Your task to perform on an android device: clear all cookies in the chrome app Image 0: 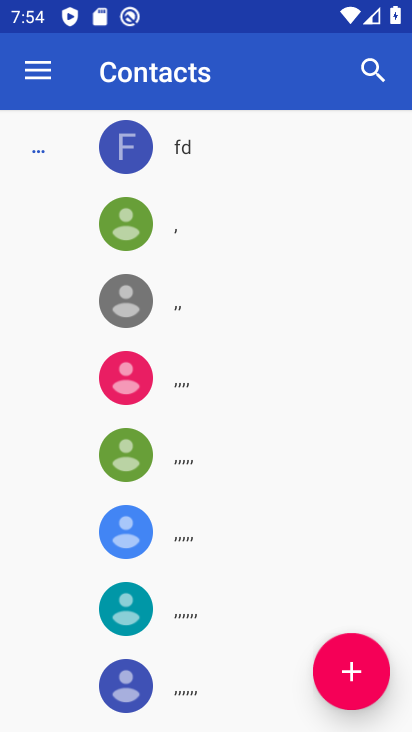
Step 0: press home button
Your task to perform on an android device: clear all cookies in the chrome app Image 1: 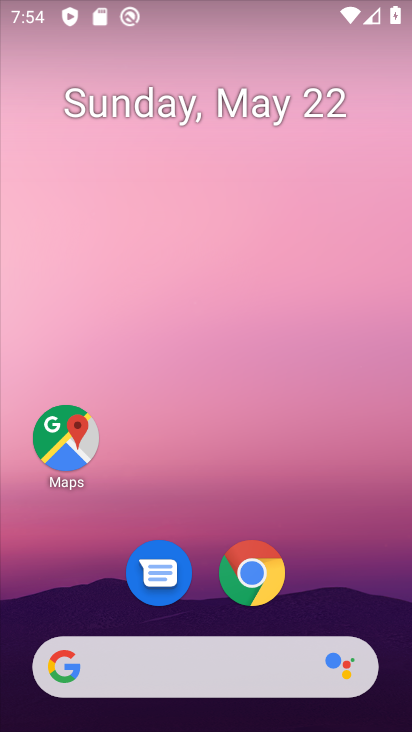
Step 1: click (232, 570)
Your task to perform on an android device: clear all cookies in the chrome app Image 2: 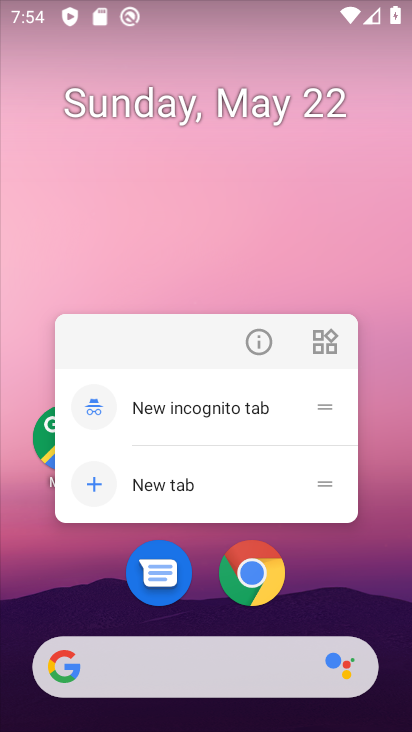
Step 2: click (236, 566)
Your task to perform on an android device: clear all cookies in the chrome app Image 3: 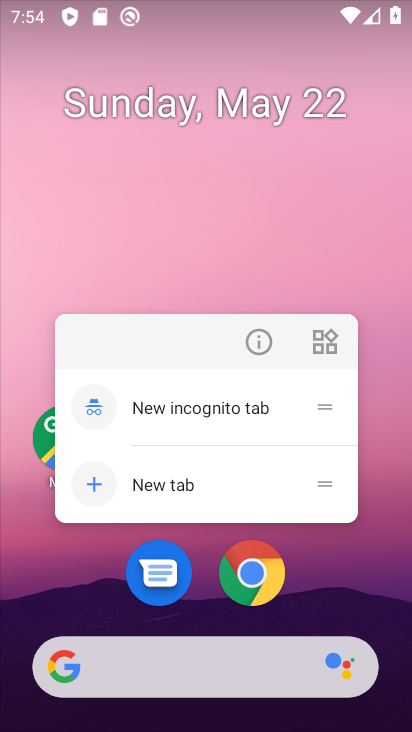
Step 3: click (237, 580)
Your task to perform on an android device: clear all cookies in the chrome app Image 4: 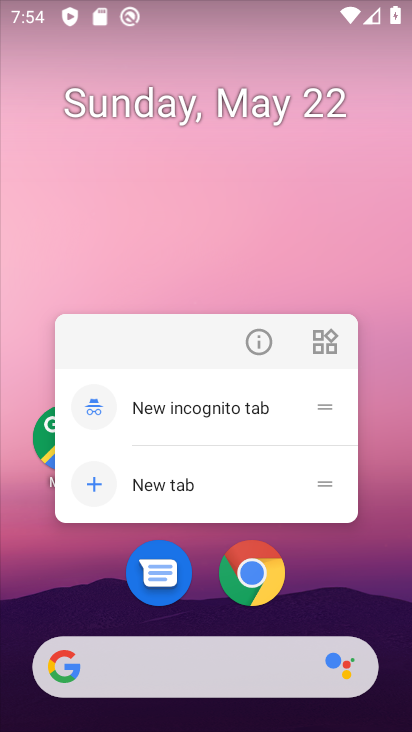
Step 4: drag from (378, 582) to (368, 186)
Your task to perform on an android device: clear all cookies in the chrome app Image 5: 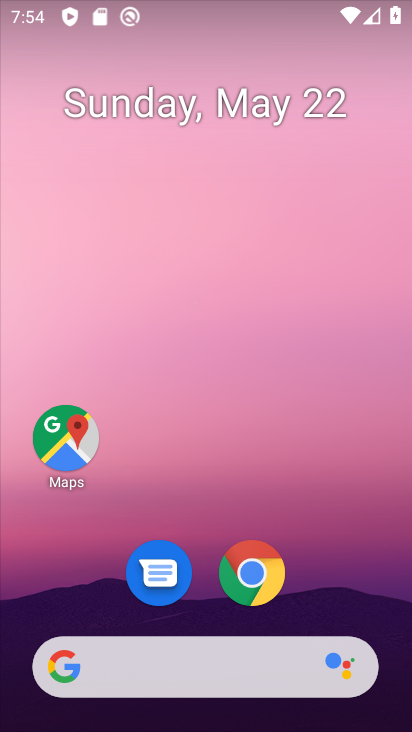
Step 5: drag from (362, 594) to (343, 231)
Your task to perform on an android device: clear all cookies in the chrome app Image 6: 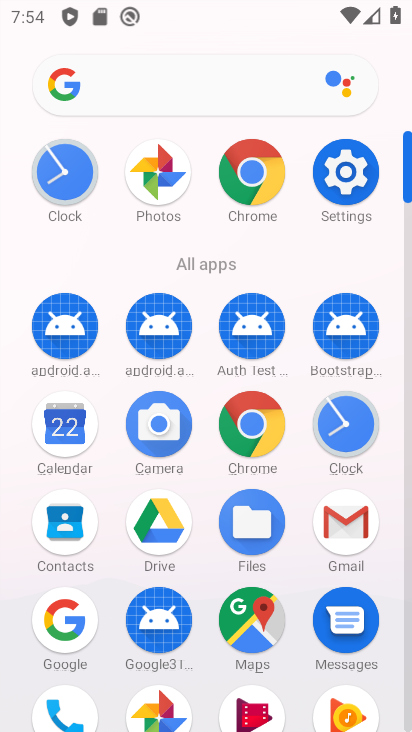
Step 6: click (238, 424)
Your task to perform on an android device: clear all cookies in the chrome app Image 7: 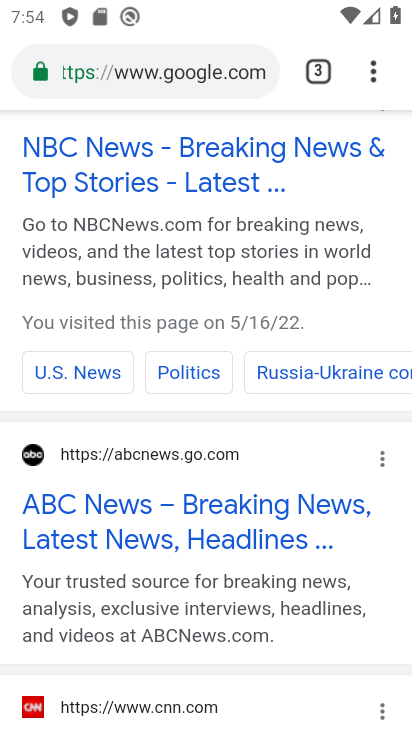
Step 7: drag from (361, 72) to (173, 405)
Your task to perform on an android device: clear all cookies in the chrome app Image 8: 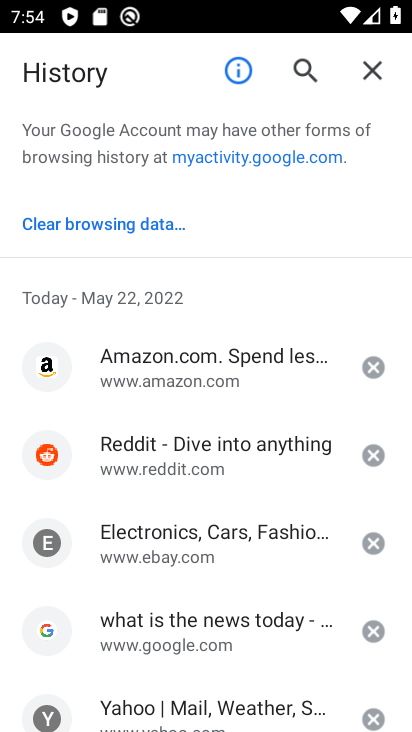
Step 8: click (130, 220)
Your task to perform on an android device: clear all cookies in the chrome app Image 9: 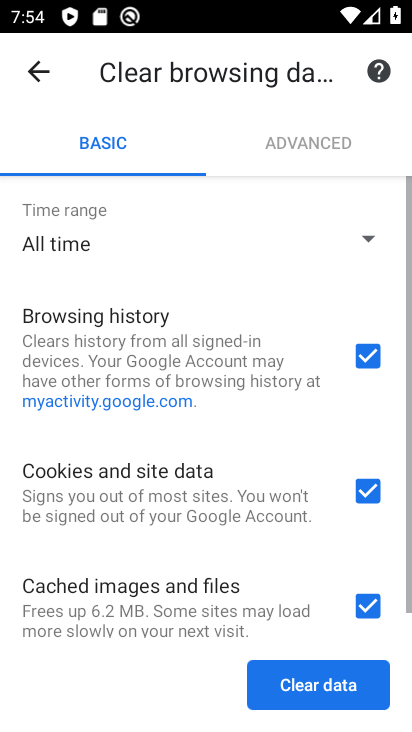
Step 9: click (304, 697)
Your task to perform on an android device: clear all cookies in the chrome app Image 10: 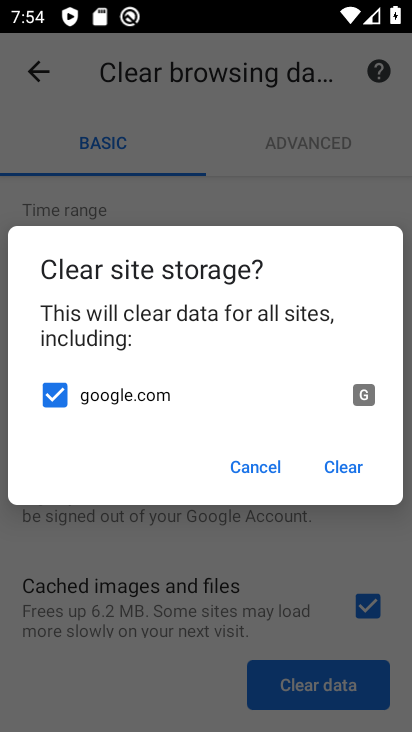
Step 10: click (351, 474)
Your task to perform on an android device: clear all cookies in the chrome app Image 11: 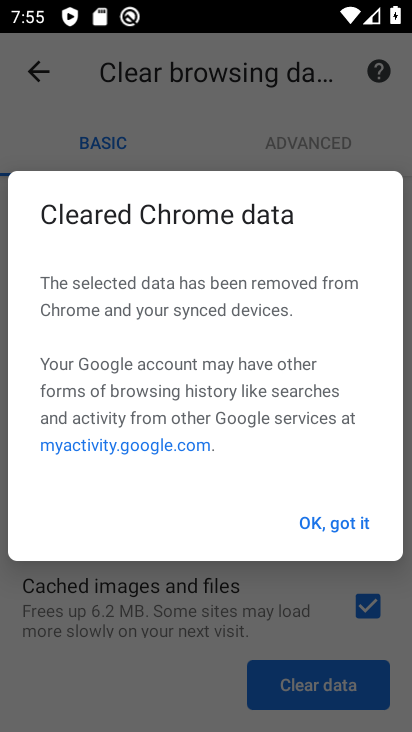
Step 11: click (334, 526)
Your task to perform on an android device: clear all cookies in the chrome app Image 12: 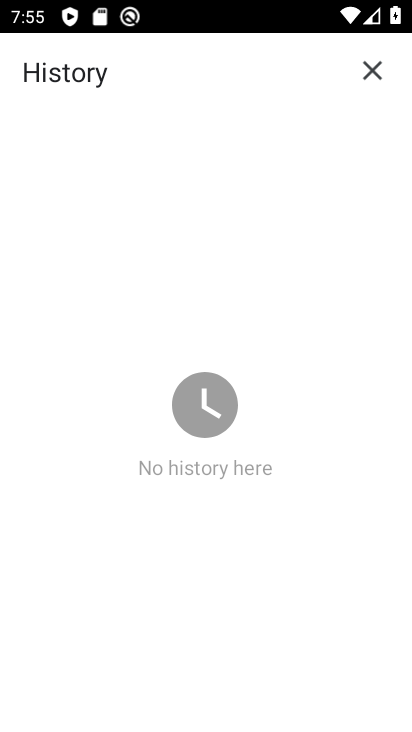
Step 12: task complete